Your task to perform on an android device: Open Google Chrome and open the bookmarks view Image 0: 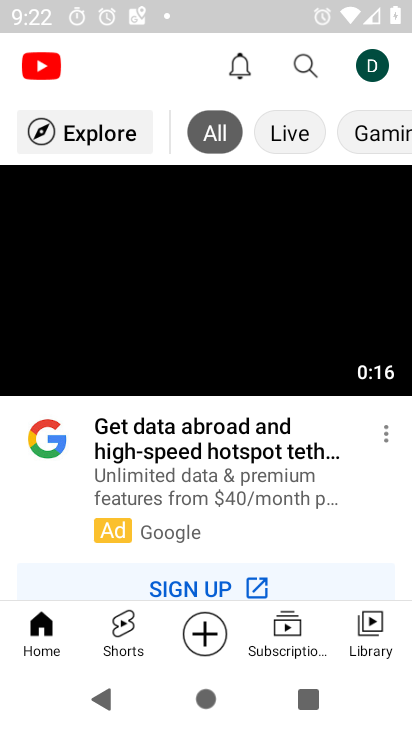
Step 0: press back button
Your task to perform on an android device: Open Google Chrome and open the bookmarks view Image 1: 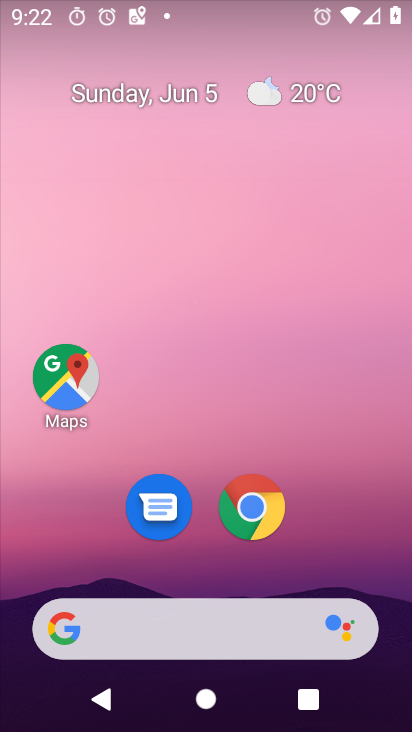
Step 1: drag from (365, 612) to (238, 41)
Your task to perform on an android device: Open Google Chrome and open the bookmarks view Image 2: 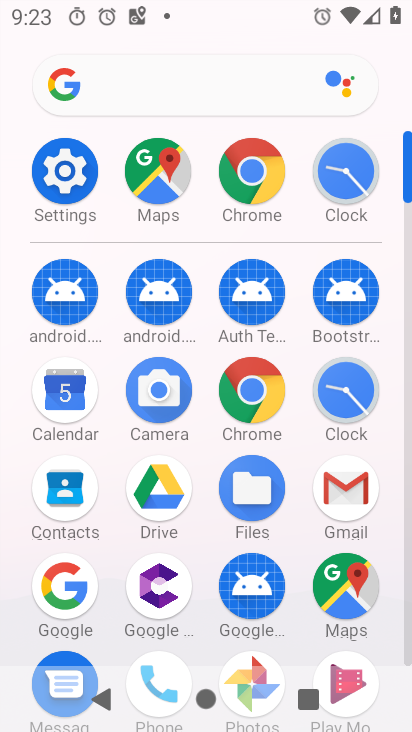
Step 2: click (254, 382)
Your task to perform on an android device: Open Google Chrome and open the bookmarks view Image 3: 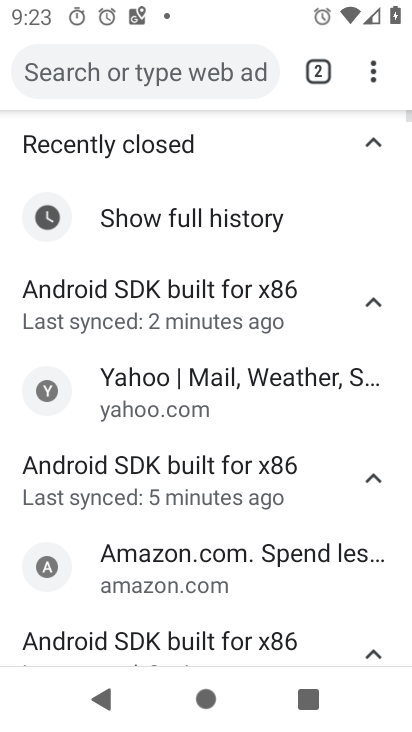
Step 3: task complete